Your task to perform on an android device: Open calendar and show me the second week of next month Image 0: 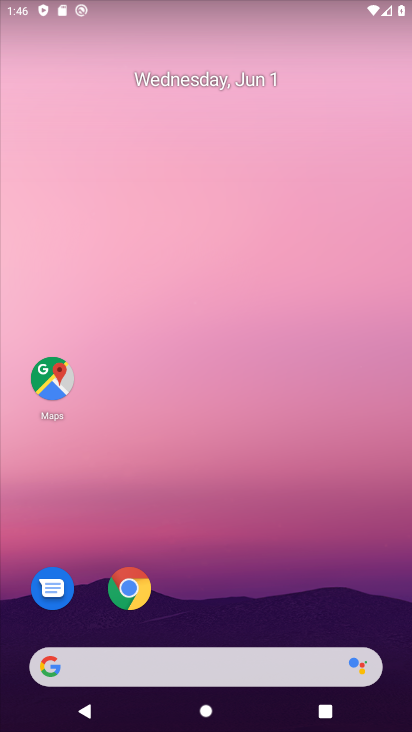
Step 0: drag from (216, 543) to (231, 61)
Your task to perform on an android device: Open calendar and show me the second week of next month Image 1: 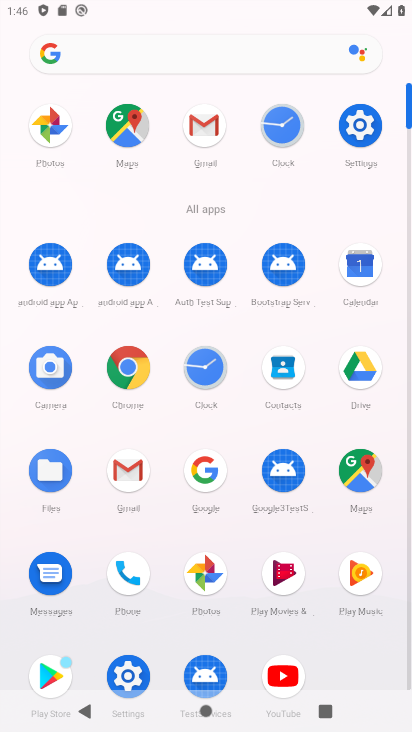
Step 1: click (357, 262)
Your task to perform on an android device: Open calendar and show me the second week of next month Image 2: 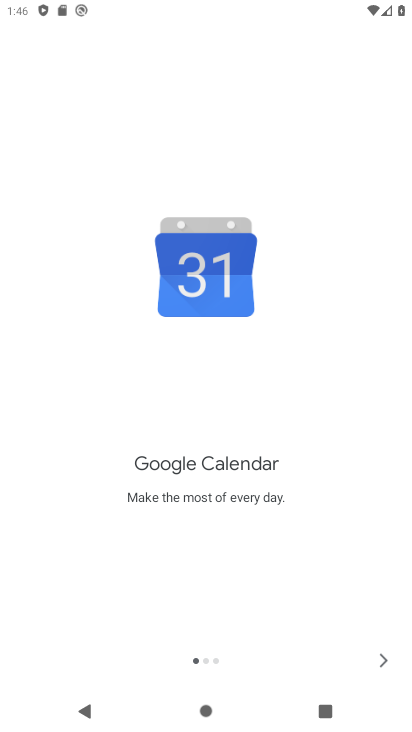
Step 2: click (370, 653)
Your task to perform on an android device: Open calendar and show me the second week of next month Image 3: 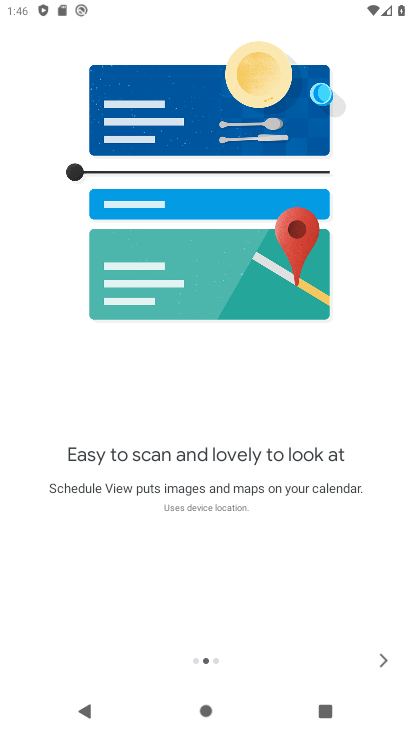
Step 3: click (370, 653)
Your task to perform on an android device: Open calendar and show me the second week of next month Image 4: 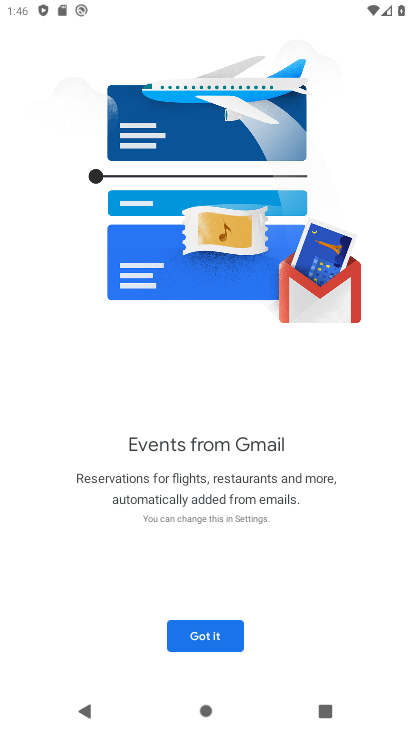
Step 4: click (370, 653)
Your task to perform on an android device: Open calendar and show me the second week of next month Image 5: 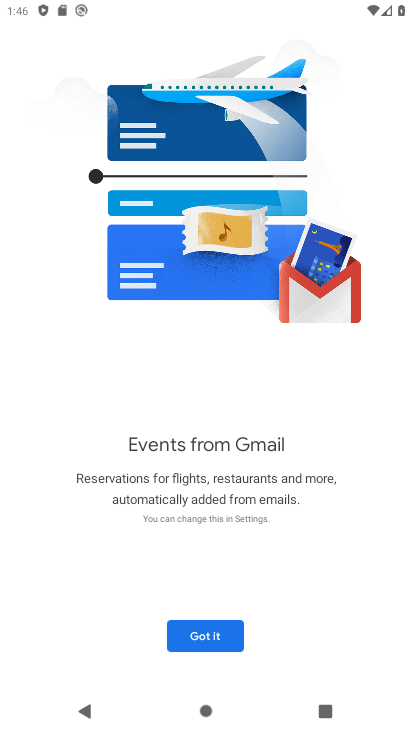
Step 5: click (196, 626)
Your task to perform on an android device: Open calendar and show me the second week of next month Image 6: 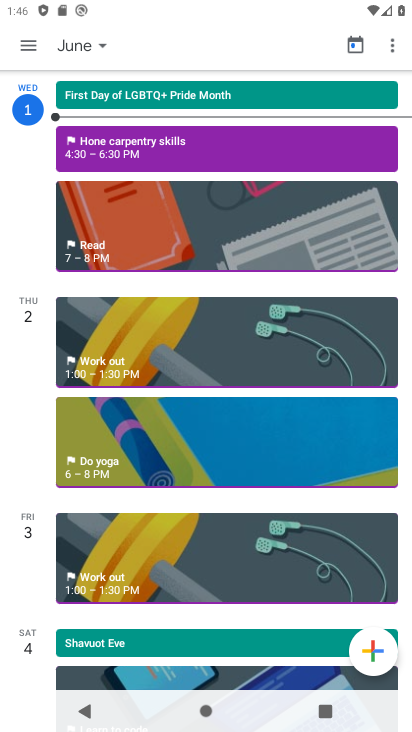
Step 6: click (101, 47)
Your task to perform on an android device: Open calendar and show me the second week of next month Image 7: 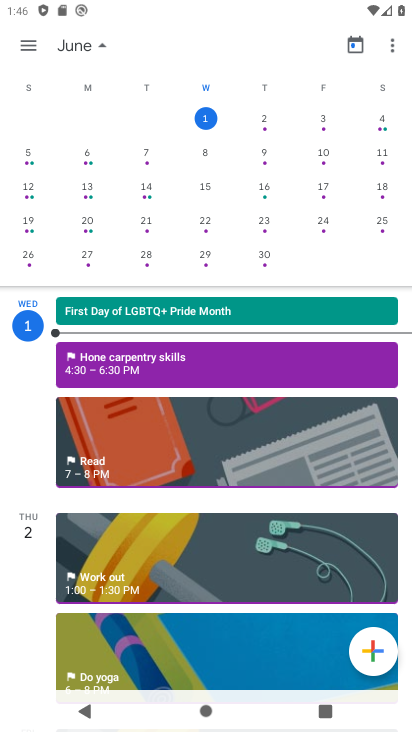
Step 7: drag from (402, 259) to (16, 204)
Your task to perform on an android device: Open calendar and show me the second week of next month Image 8: 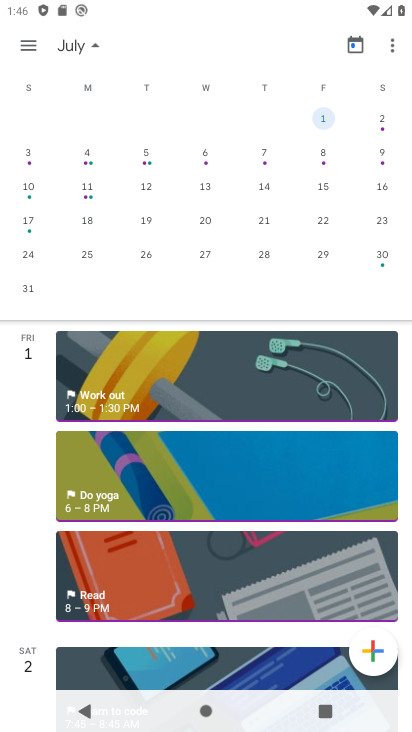
Step 8: click (374, 155)
Your task to perform on an android device: Open calendar and show me the second week of next month Image 9: 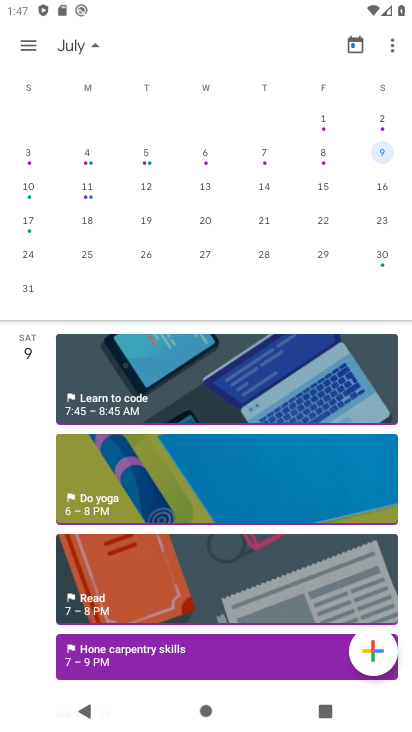
Step 9: task complete